Your task to perform on an android device: Show me popular games on the Play Store Image 0: 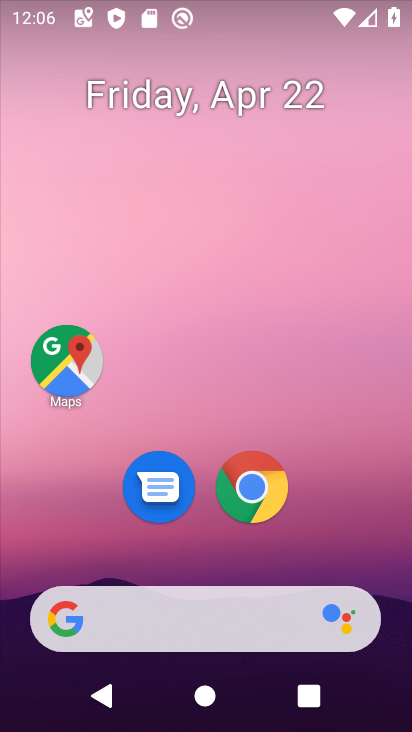
Step 0: drag from (202, 542) to (176, 33)
Your task to perform on an android device: Show me popular games on the Play Store Image 1: 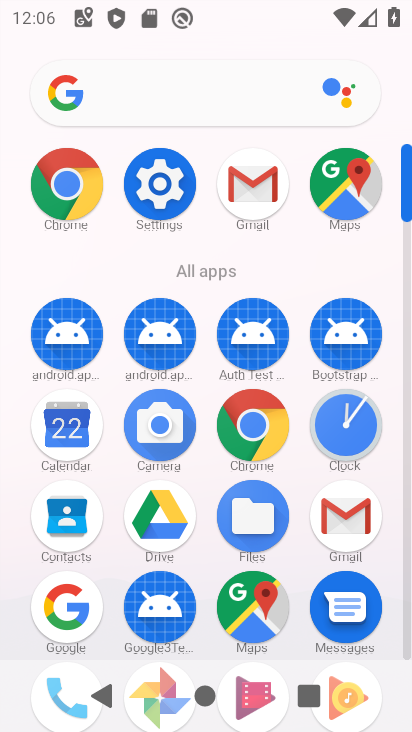
Step 1: drag from (107, 569) to (107, 92)
Your task to perform on an android device: Show me popular games on the Play Store Image 2: 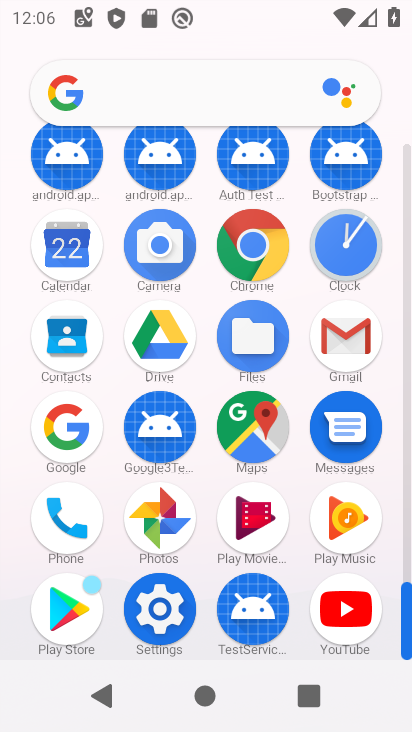
Step 2: click (77, 586)
Your task to perform on an android device: Show me popular games on the Play Store Image 3: 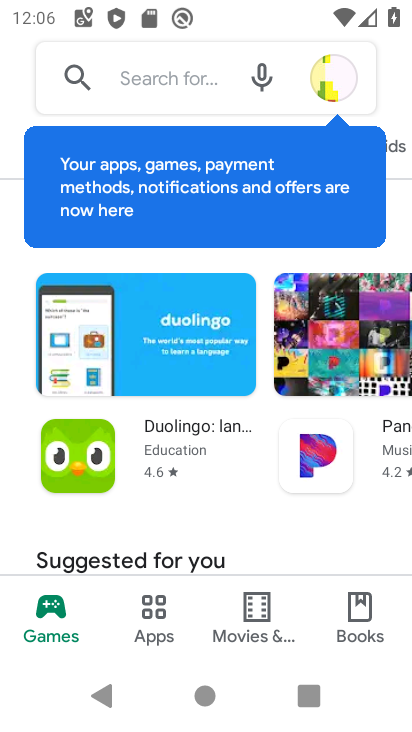
Step 3: click (151, 595)
Your task to perform on an android device: Show me popular games on the Play Store Image 4: 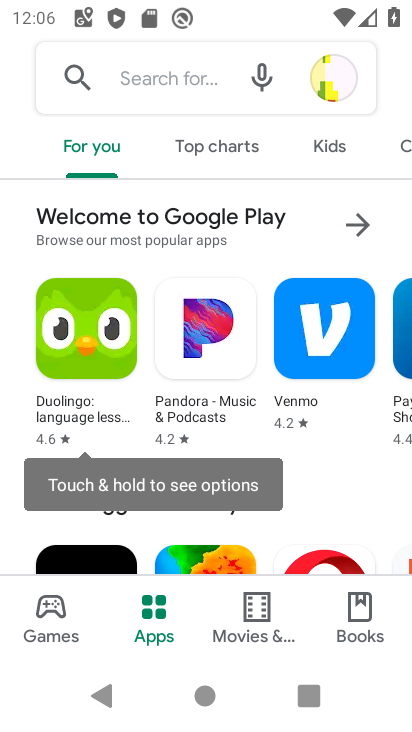
Step 4: click (216, 146)
Your task to perform on an android device: Show me popular games on the Play Store Image 5: 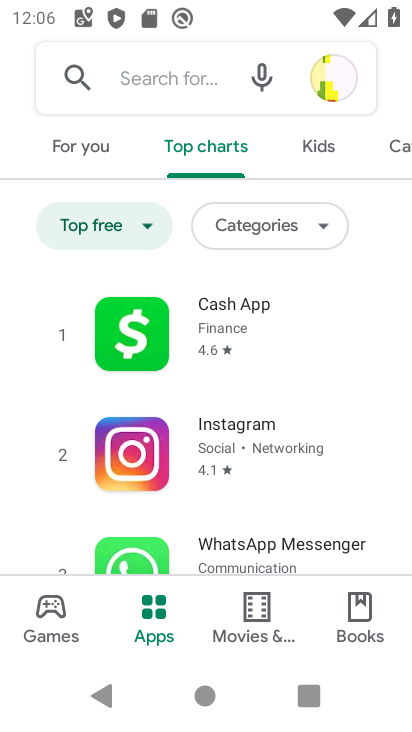
Step 5: drag from (126, 488) to (175, 22)
Your task to perform on an android device: Show me popular games on the Play Store Image 6: 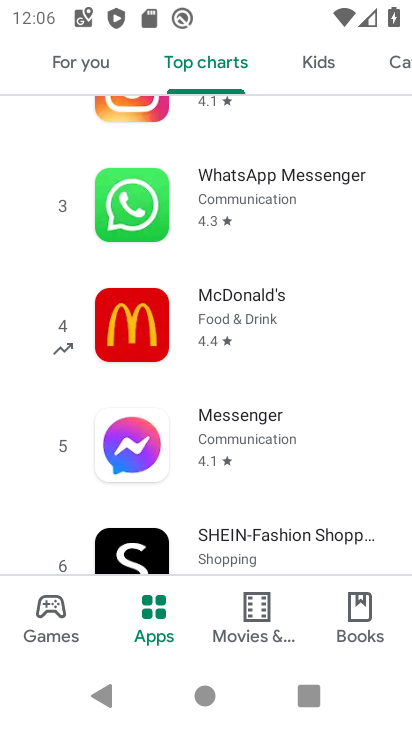
Step 6: drag from (81, 528) to (115, 5)
Your task to perform on an android device: Show me popular games on the Play Store Image 7: 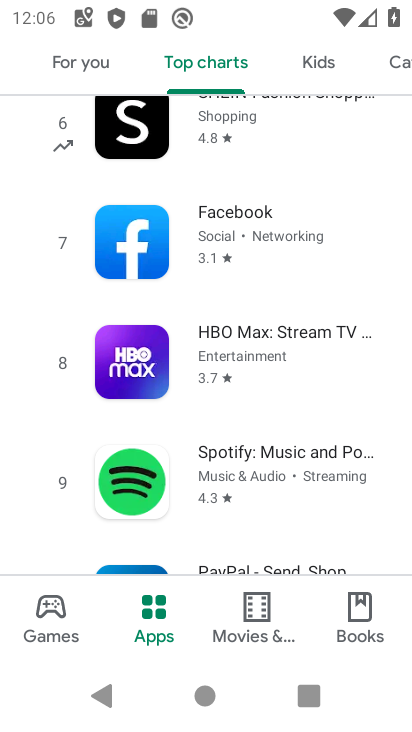
Step 7: drag from (80, 516) to (95, 198)
Your task to perform on an android device: Show me popular games on the Play Store Image 8: 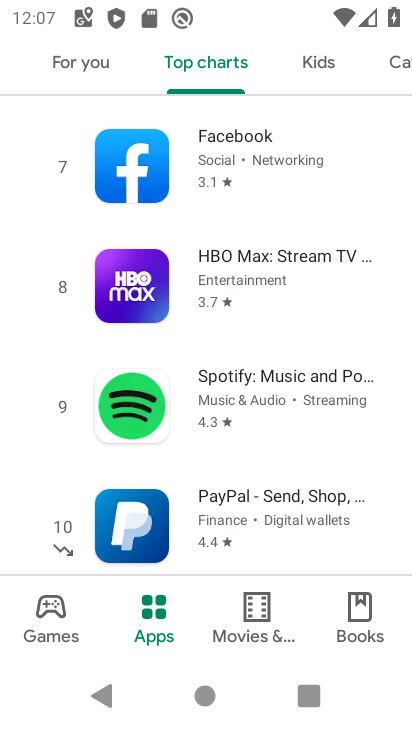
Step 8: drag from (57, 462) to (68, 42)
Your task to perform on an android device: Show me popular games on the Play Store Image 9: 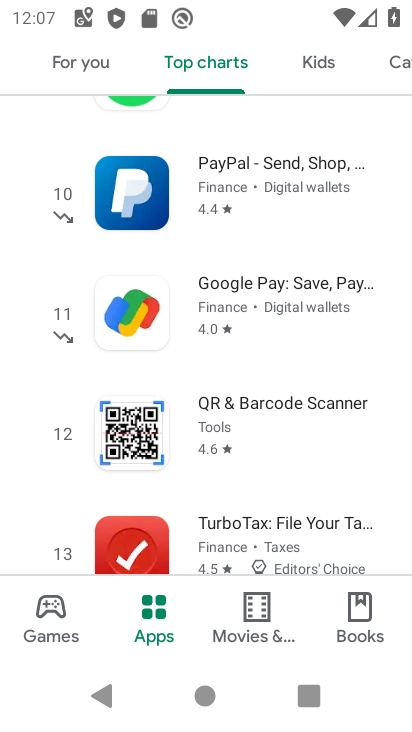
Step 9: click (75, 616)
Your task to perform on an android device: Show me popular games on the Play Store Image 10: 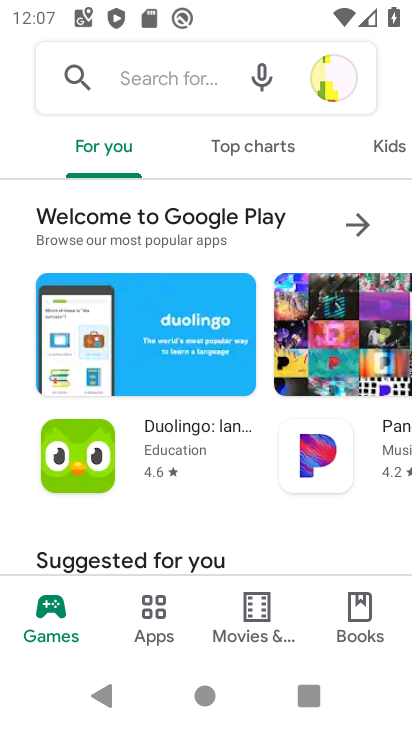
Step 10: drag from (172, 514) to (192, 42)
Your task to perform on an android device: Show me popular games on the Play Store Image 11: 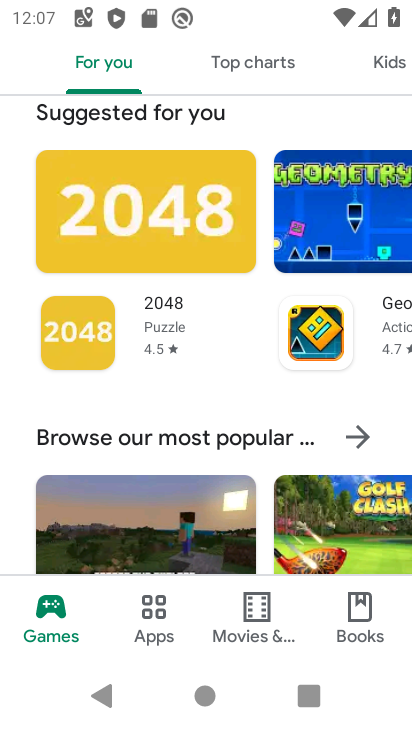
Step 11: drag from (162, 217) to (201, 31)
Your task to perform on an android device: Show me popular games on the Play Store Image 12: 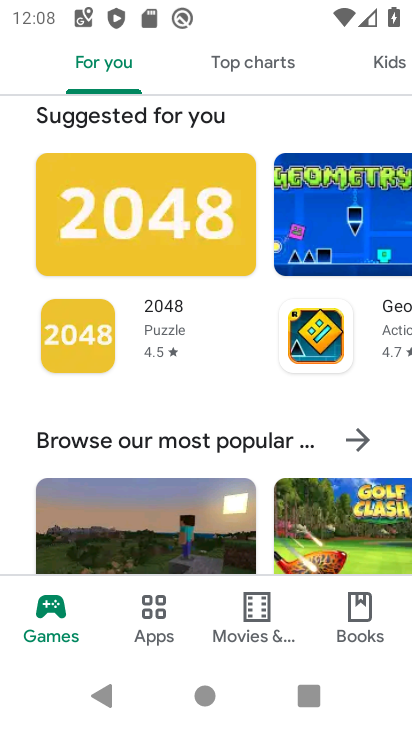
Step 12: drag from (30, 463) to (80, 46)
Your task to perform on an android device: Show me popular games on the Play Store Image 13: 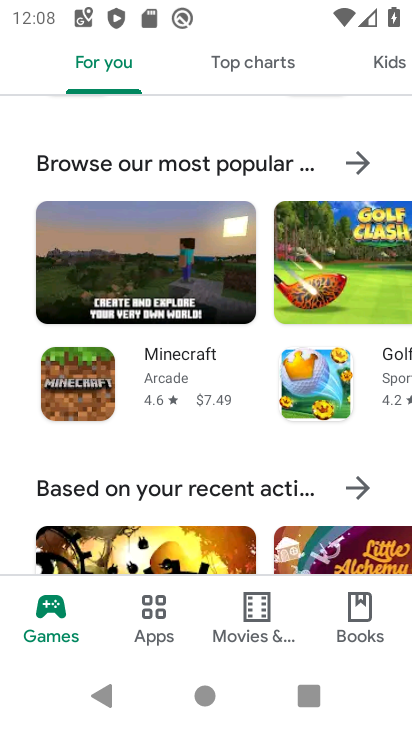
Step 13: drag from (227, 495) to (241, 30)
Your task to perform on an android device: Show me popular games on the Play Store Image 14: 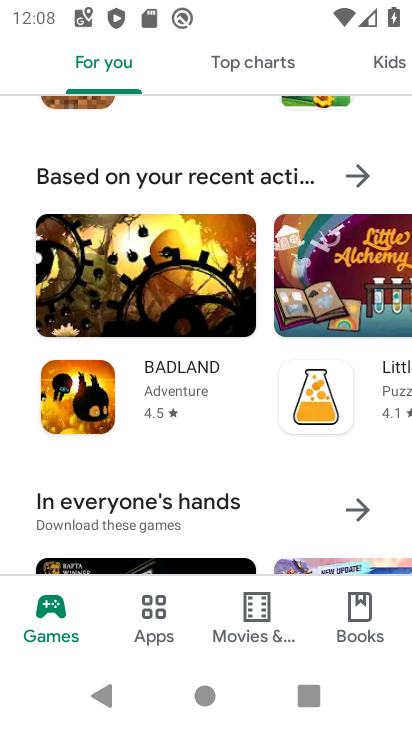
Step 14: drag from (190, 477) to (197, 13)
Your task to perform on an android device: Show me popular games on the Play Store Image 15: 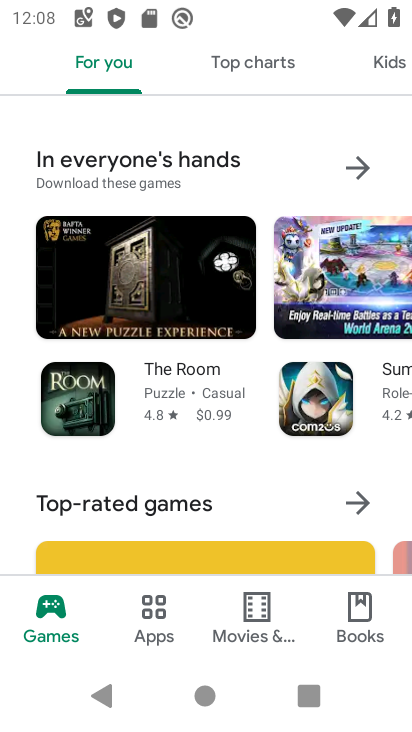
Step 15: drag from (232, 523) to (236, 117)
Your task to perform on an android device: Show me popular games on the Play Store Image 16: 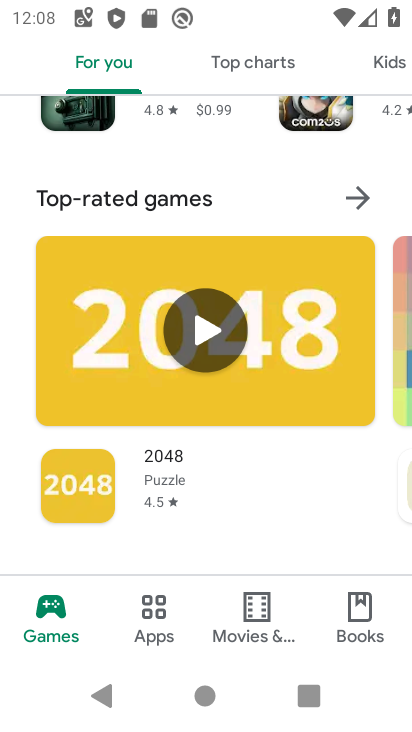
Step 16: drag from (178, 564) to (203, 38)
Your task to perform on an android device: Show me popular games on the Play Store Image 17: 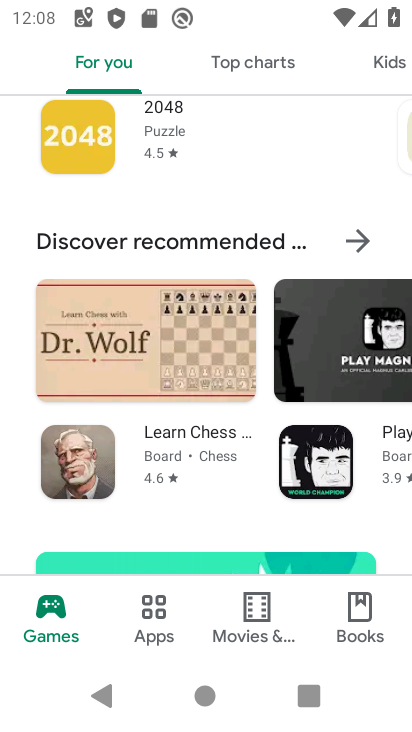
Step 17: drag from (151, 526) to (159, 45)
Your task to perform on an android device: Show me popular games on the Play Store Image 18: 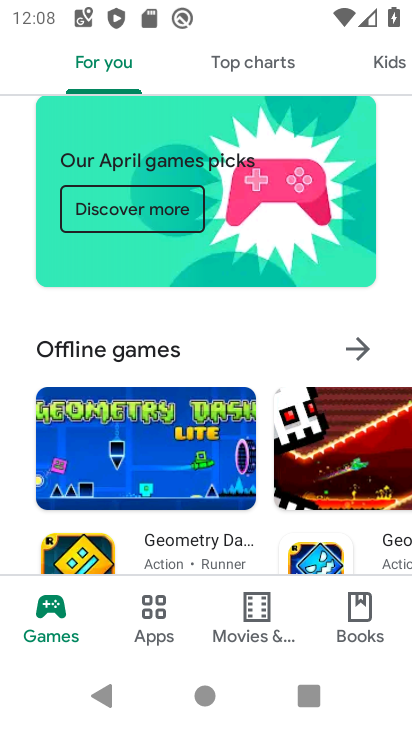
Step 18: drag from (139, 522) to (147, 144)
Your task to perform on an android device: Show me popular games on the Play Store Image 19: 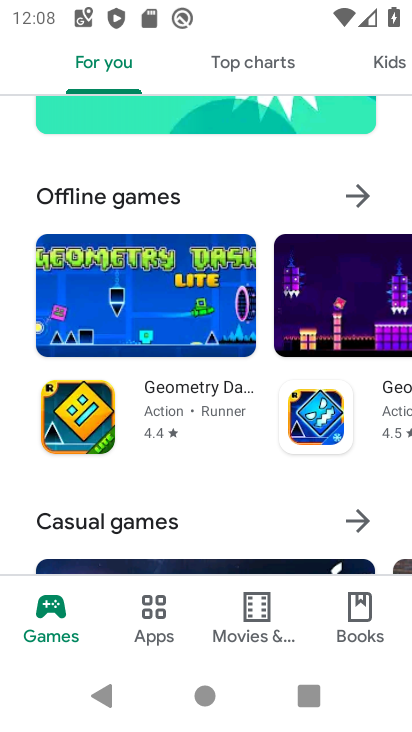
Step 19: drag from (189, 125) to (221, 535)
Your task to perform on an android device: Show me popular games on the Play Store Image 20: 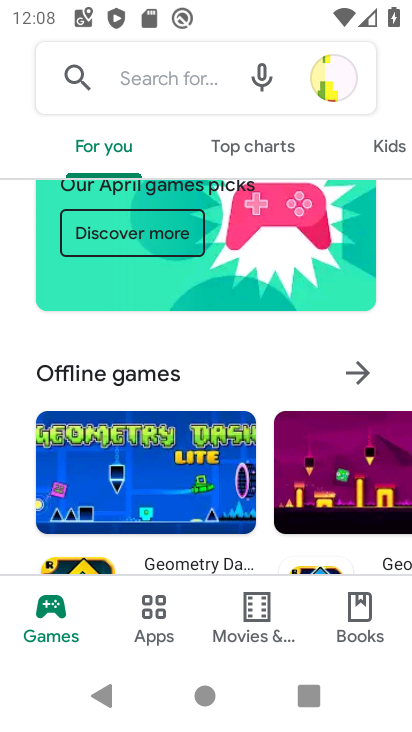
Step 20: drag from (131, 252) to (192, 728)
Your task to perform on an android device: Show me popular games on the Play Store Image 21: 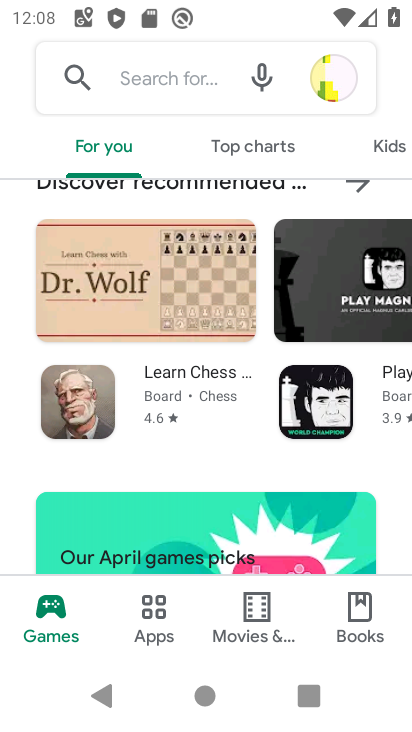
Step 21: click (260, 140)
Your task to perform on an android device: Show me popular games on the Play Store Image 22: 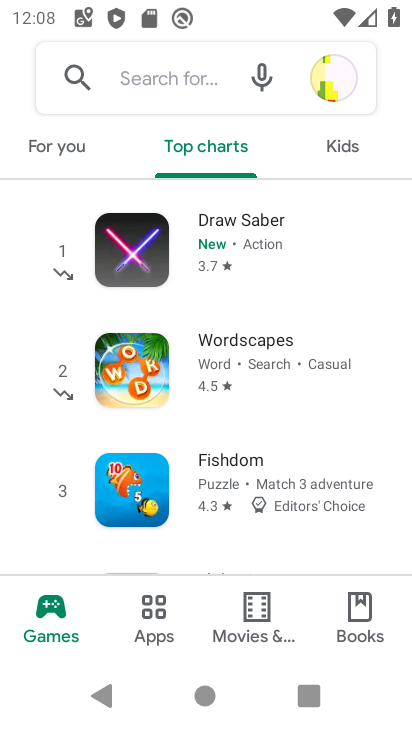
Step 22: task complete